Your task to perform on an android device: Toggle the flashlight Image 0: 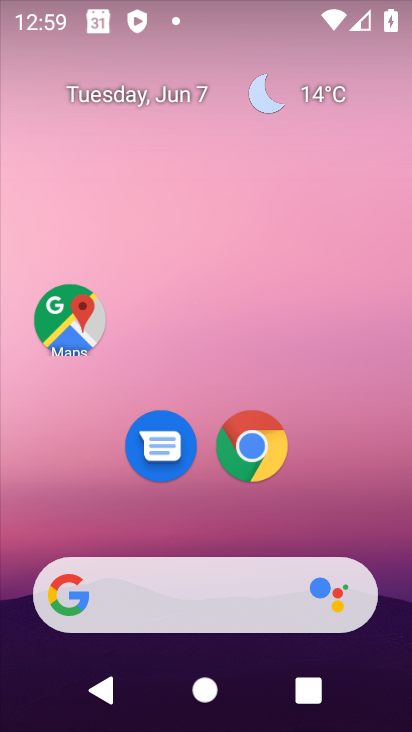
Step 0: drag from (376, 552) to (241, 48)
Your task to perform on an android device: Toggle the flashlight Image 1: 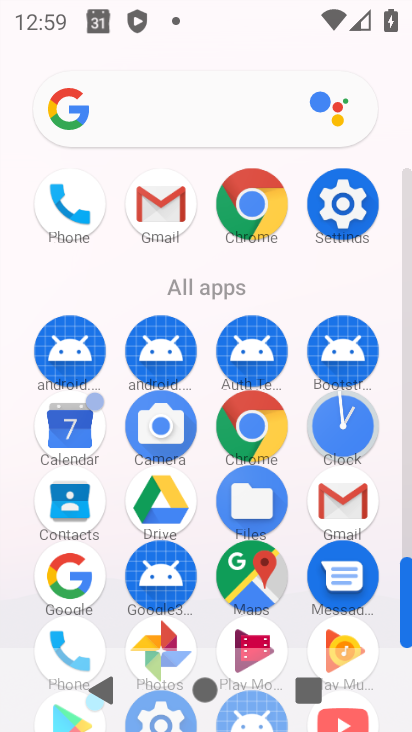
Step 1: drag from (20, 569) to (24, 250)
Your task to perform on an android device: Toggle the flashlight Image 2: 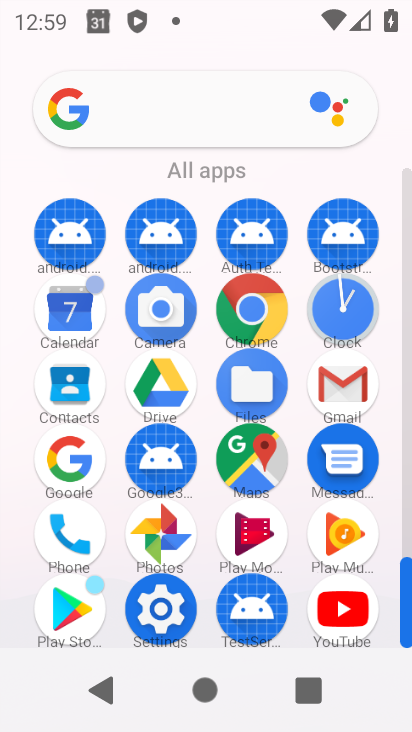
Step 2: click (161, 610)
Your task to perform on an android device: Toggle the flashlight Image 3: 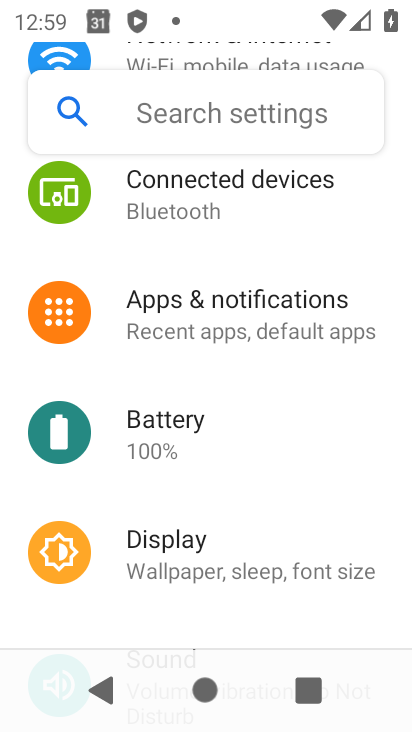
Step 3: drag from (244, 287) to (287, 634)
Your task to perform on an android device: Toggle the flashlight Image 4: 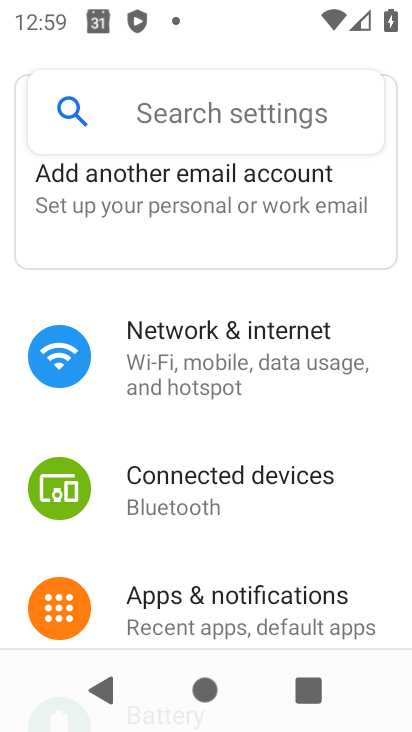
Step 4: click (230, 325)
Your task to perform on an android device: Toggle the flashlight Image 5: 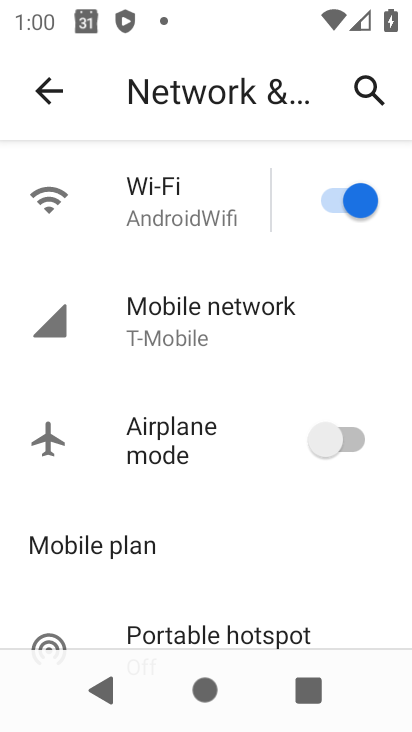
Step 5: drag from (219, 530) to (214, 199)
Your task to perform on an android device: Toggle the flashlight Image 6: 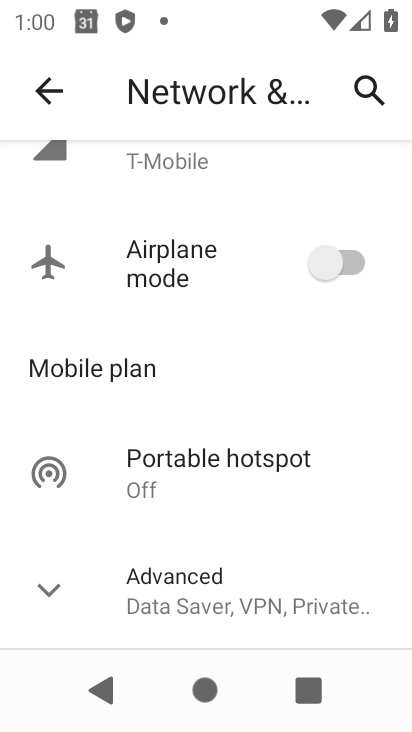
Step 6: click (86, 598)
Your task to perform on an android device: Toggle the flashlight Image 7: 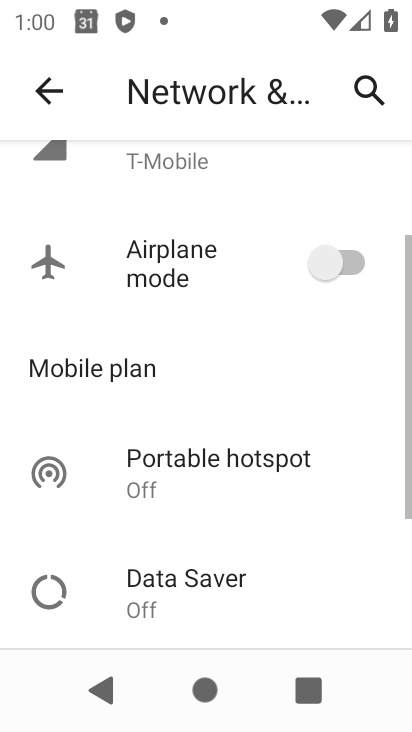
Step 7: task complete